Your task to perform on an android device: turn on the 12-hour format for clock Image 0: 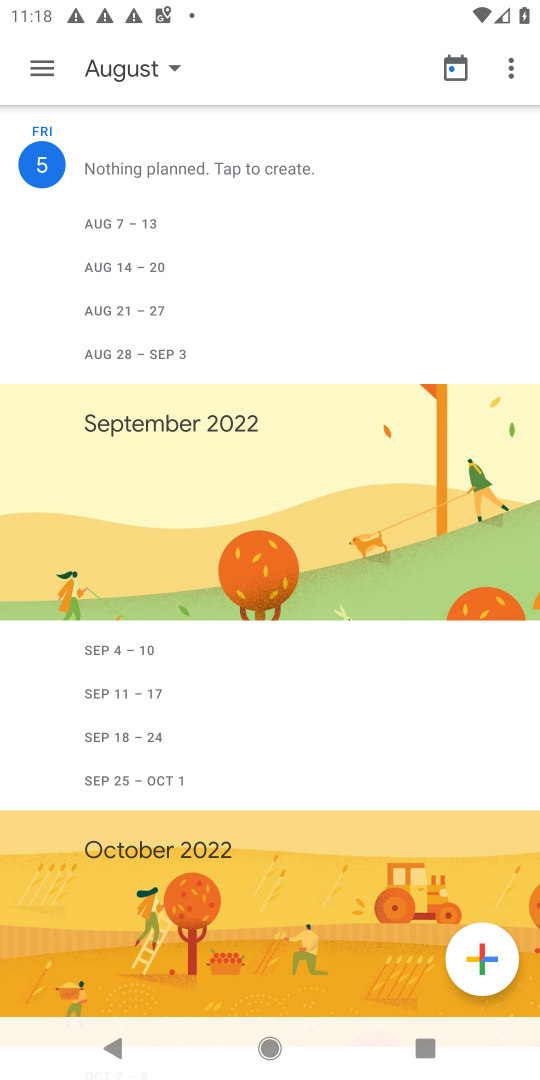
Step 0: press home button
Your task to perform on an android device: turn on the 12-hour format for clock Image 1: 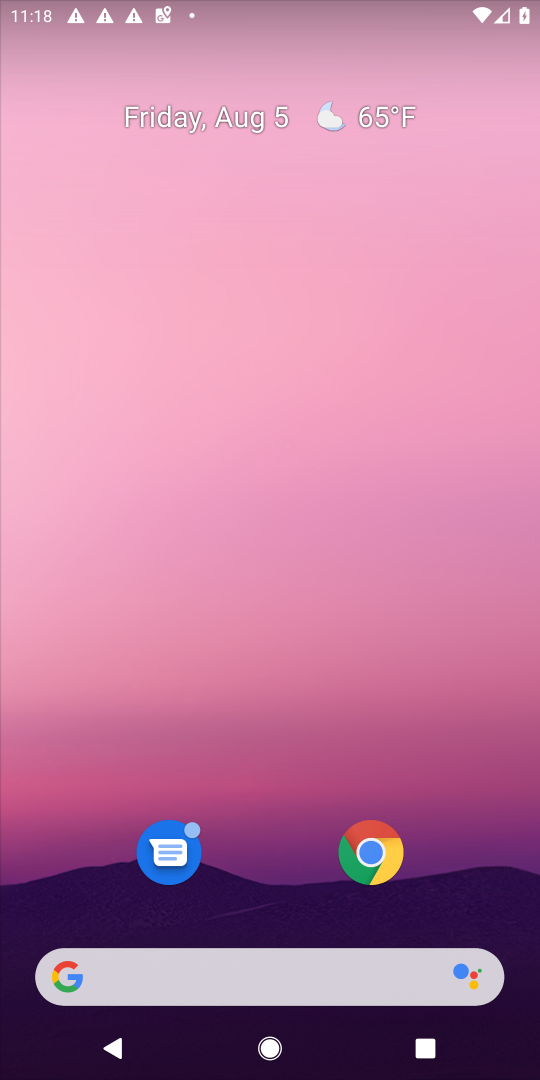
Step 1: drag from (281, 857) to (153, 172)
Your task to perform on an android device: turn on the 12-hour format for clock Image 2: 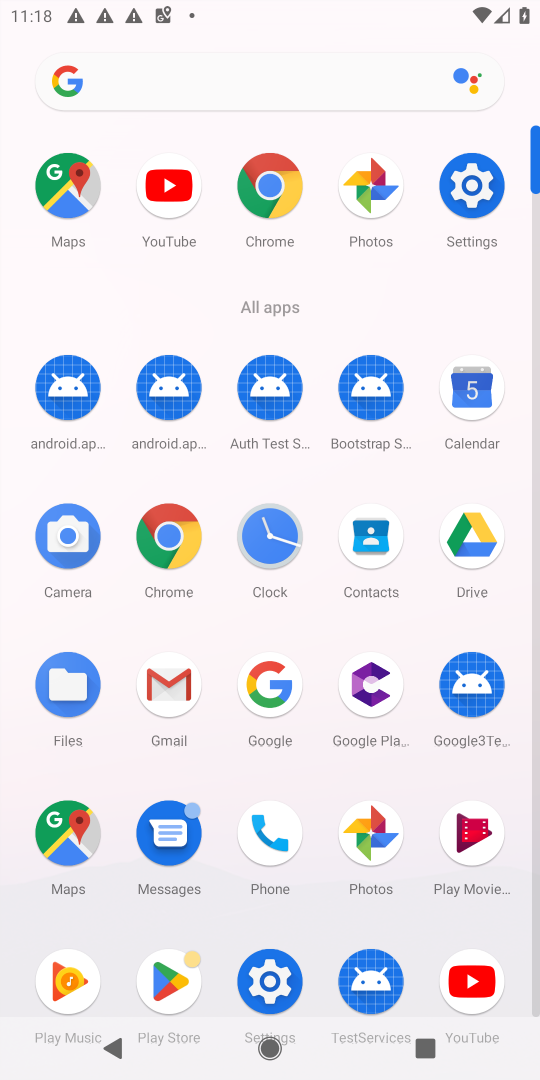
Step 2: click (253, 528)
Your task to perform on an android device: turn on the 12-hour format for clock Image 3: 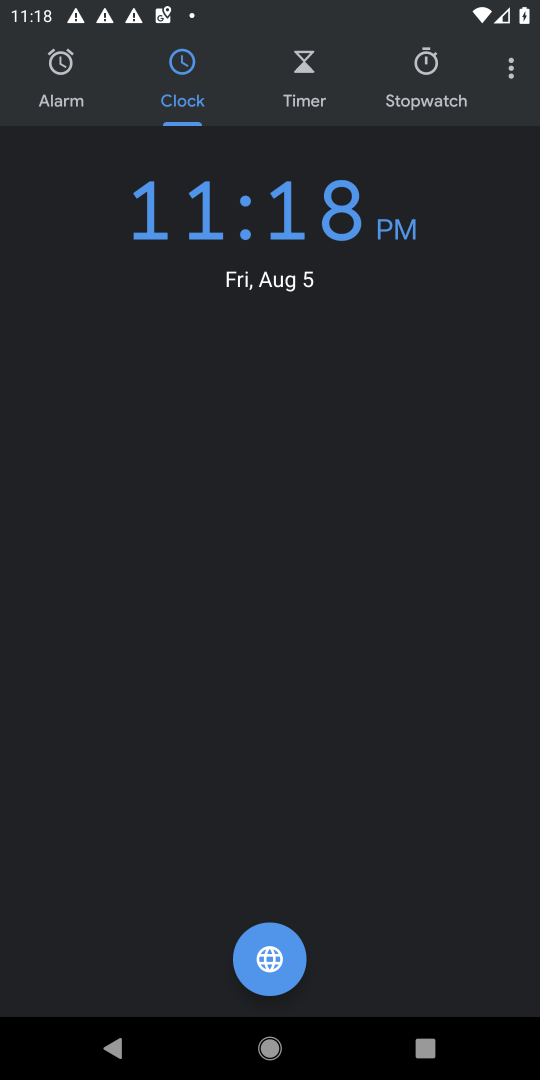
Step 3: click (506, 80)
Your task to perform on an android device: turn on the 12-hour format for clock Image 4: 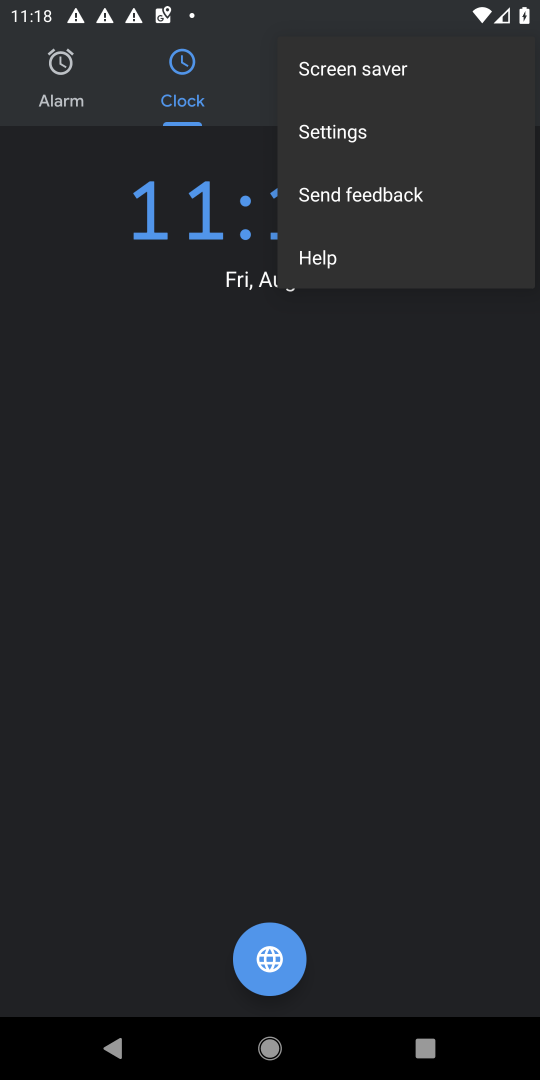
Step 4: click (352, 144)
Your task to perform on an android device: turn on the 12-hour format for clock Image 5: 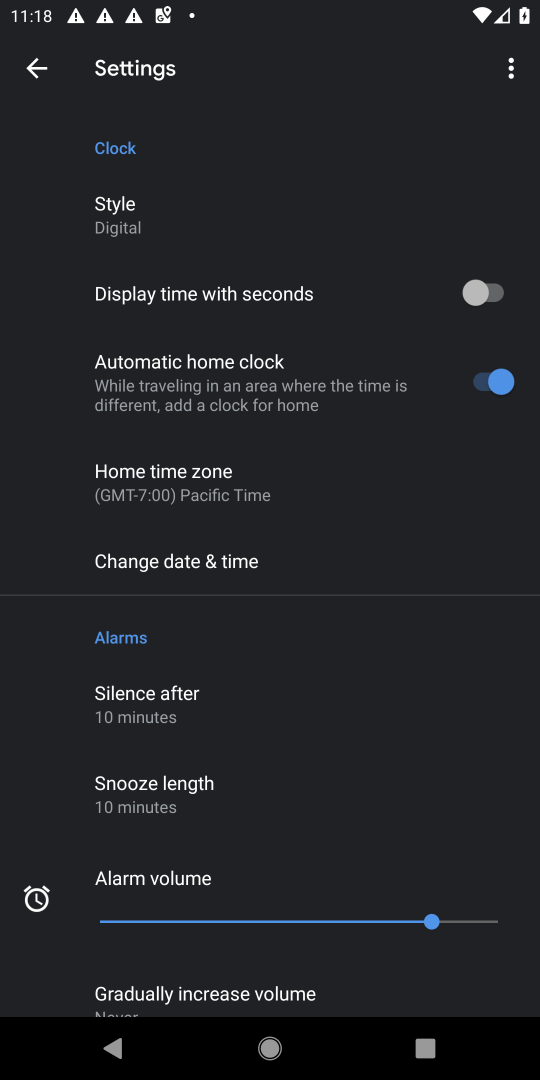
Step 5: drag from (230, 806) to (252, 669)
Your task to perform on an android device: turn on the 12-hour format for clock Image 6: 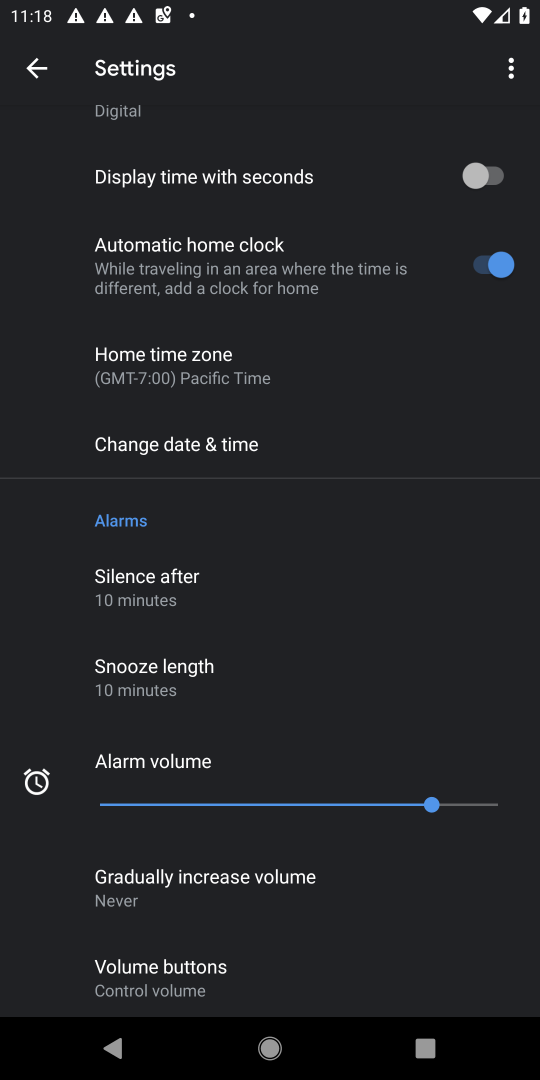
Step 6: click (284, 566)
Your task to perform on an android device: turn on the 12-hour format for clock Image 7: 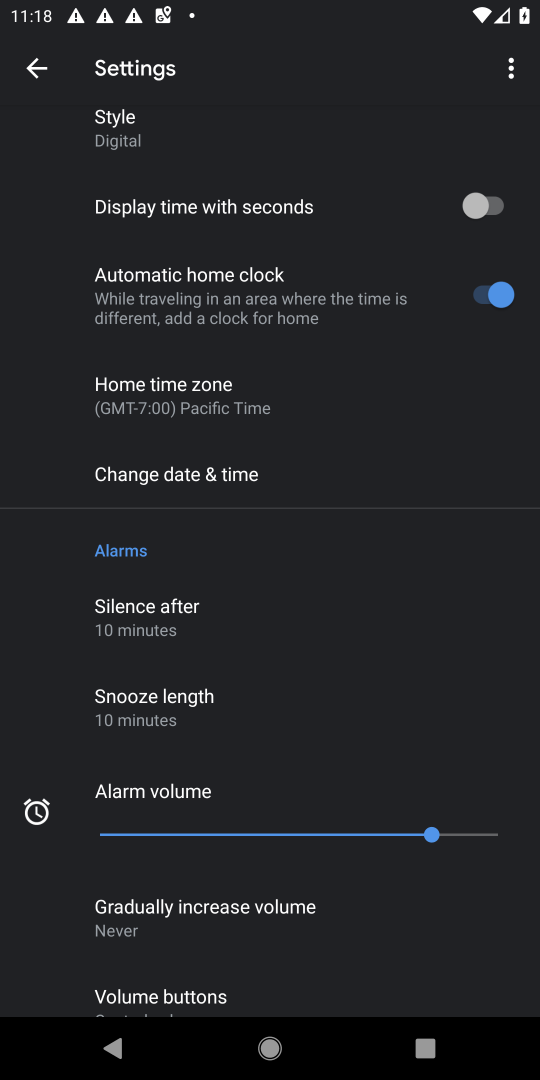
Step 7: click (221, 483)
Your task to perform on an android device: turn on the 12-hour format for clock Image 8: 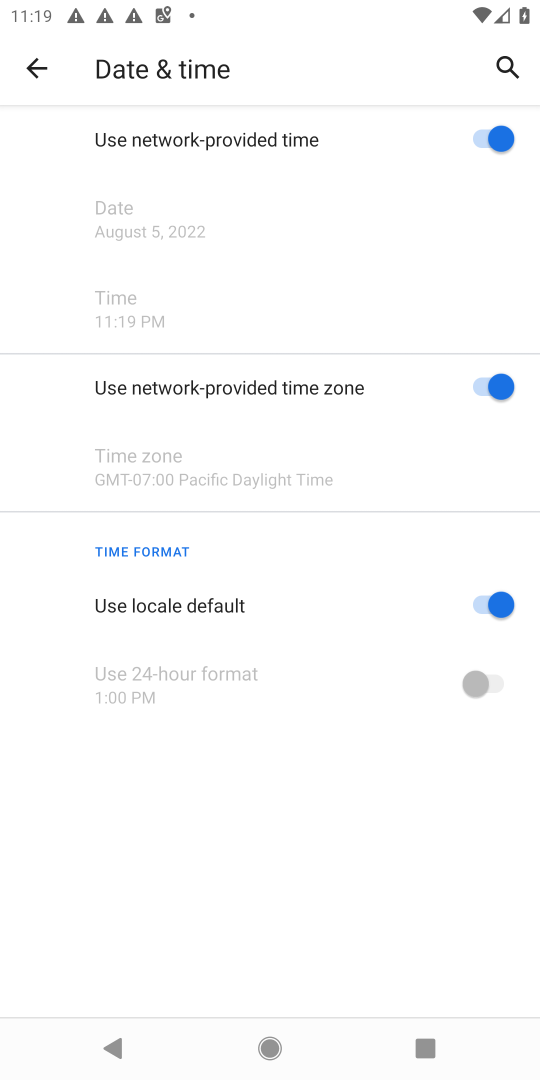
Step 8: task complete